Your task to perform on an android device: toggle javascript in the chrome app Image 0: 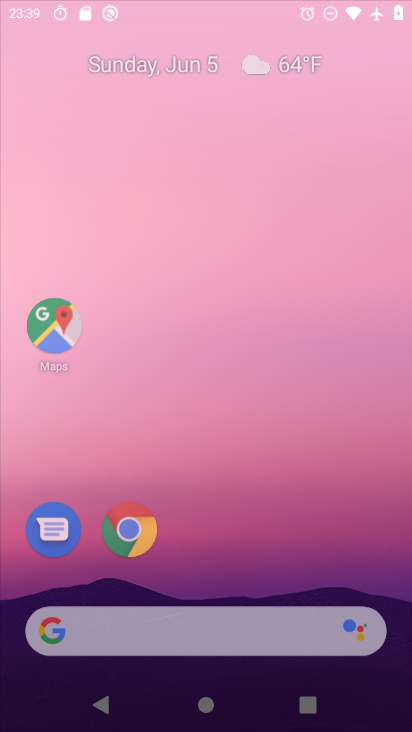
Step 0: click (317, 55)
Your task to perform on an android device: toggle javascript in the chrome app Image 1: 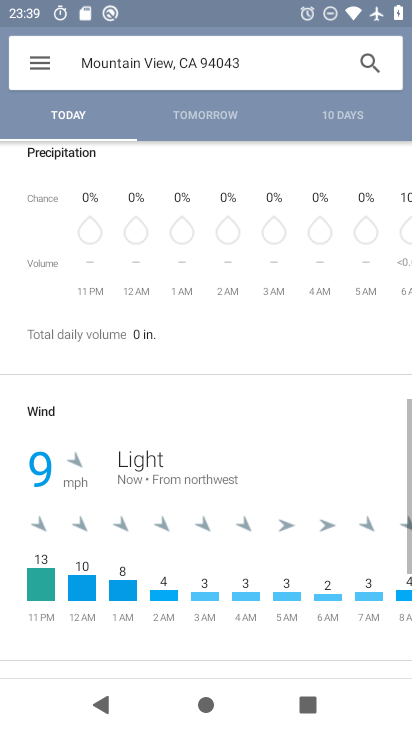
Step 1: drag from (204, 583) to (210, 351)
Your task to perform on an android device: toggle javascript in the chrome app Image 2: 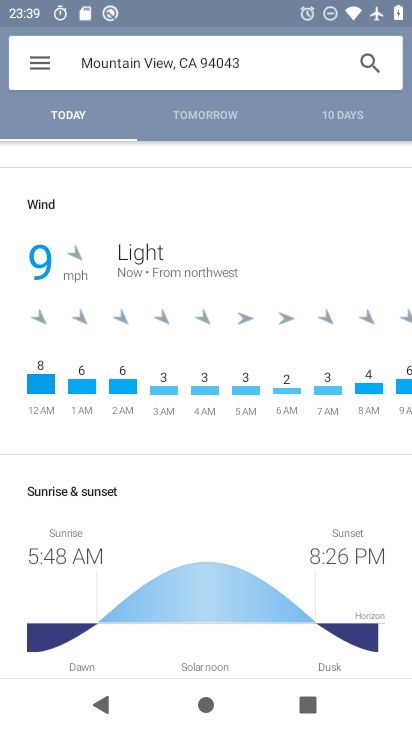
Step 2: drag from (199, 392) to (239, 716)
Your task to perform on an android device: toggle javascript in the chrome app Image 3: 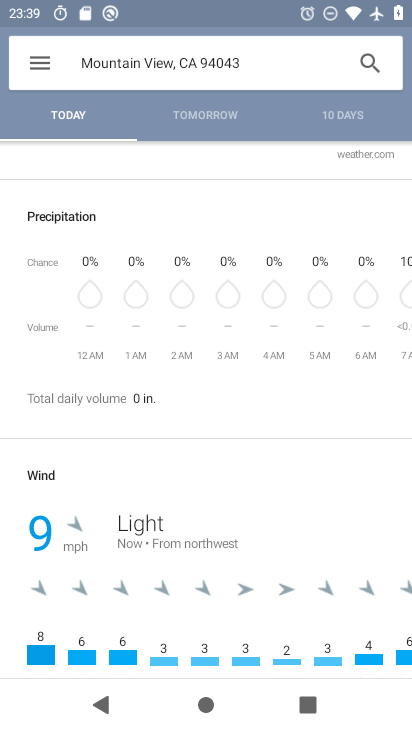
Step 3: click (33, 62)
Your task to perform on an android device: toggle javascript in the chrome app Image 4: 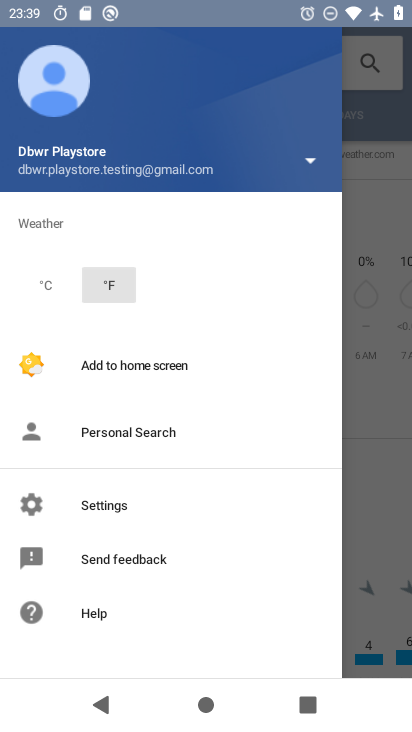
Step 4: press back button
Your task to perform on an android device: toggle javascript in the chrome app Image 5: 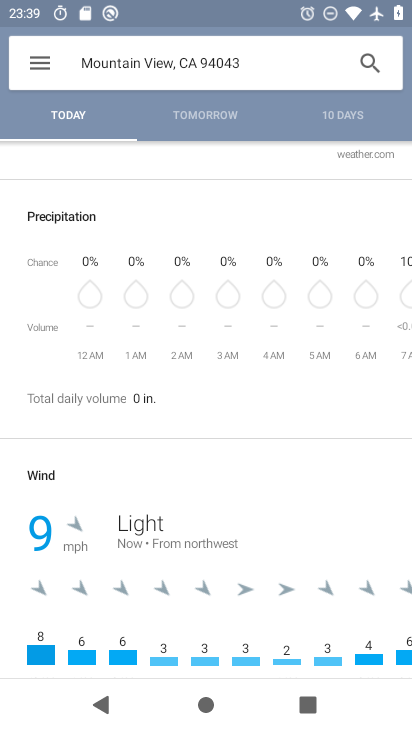
Step 5: press home button
Your task to perform on an android device: toggle javascript in the chrome app Image 6: 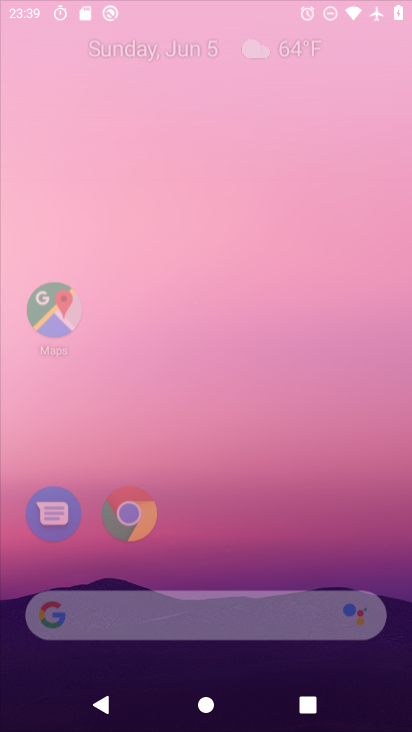
Step 6: drag from (213, 629) to (209, 83)
Your task to perform on an android device: toggle javascript in the chrome app Image 7: 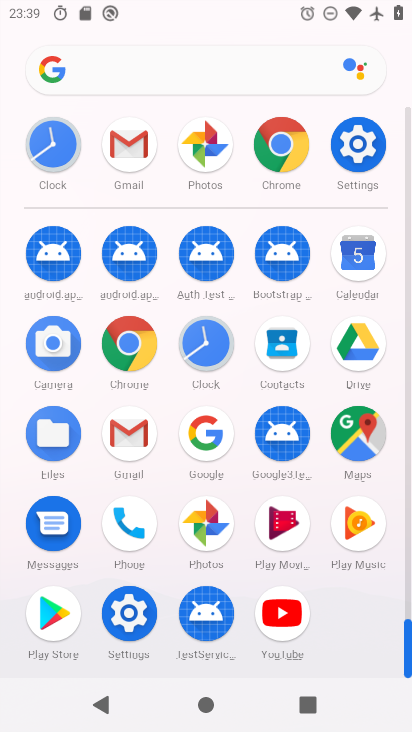
Step 7: click (139, 325)
Your task to perform on an android device: toggle javascript in the chrome app Image 8: 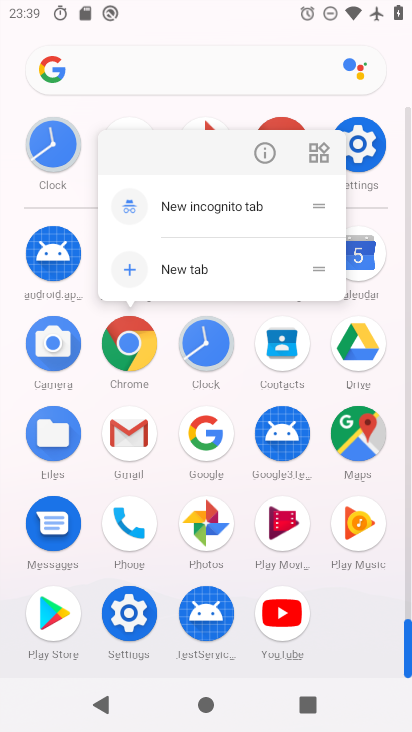
Step 8: click (268, 161)
Your task to perform on an android device: toggle javascript in the chrome app Image 9: 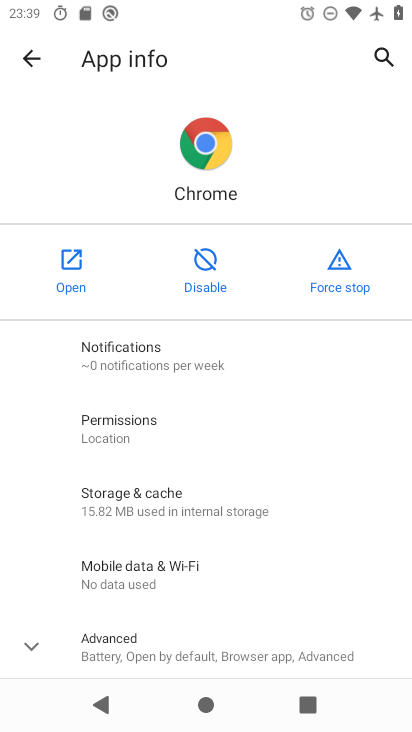
Step 9: click (70, 253)
Your task to perform on an android device: toggle javascript in the chrome app Image 10: 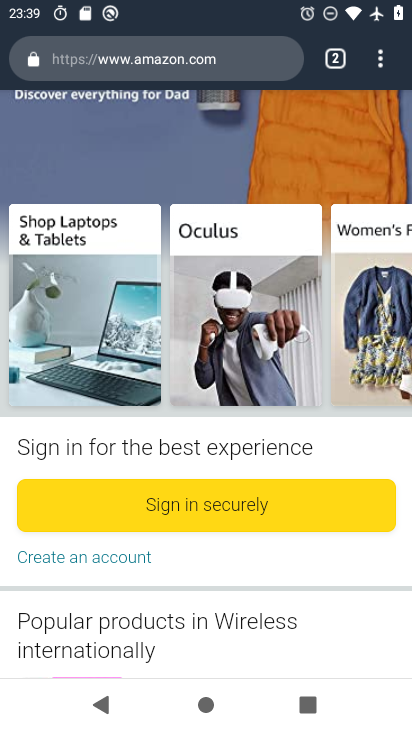
Step 10: click (368, 61)
Your task to perform on an android device: toggle javascript in the chrome app Image 11: 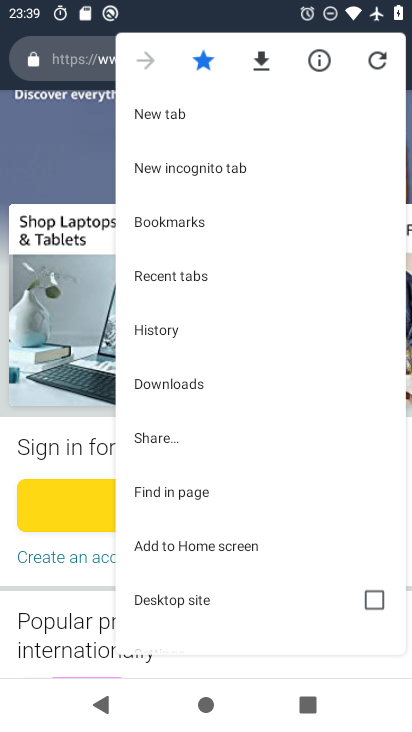
Step 11: drag from (220, 520) to (210, 0)
Your task to perform on an android device: toggle javascript in the chrome app Image 12: 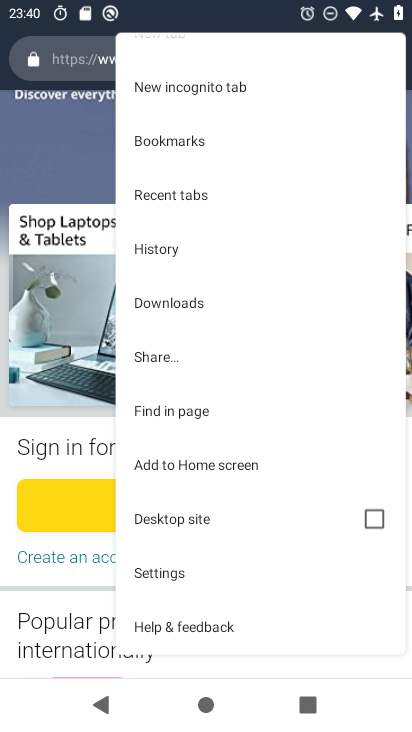
Step 12: click (179, 552)
Your task to perform on an android device: toggle javascript in the chrome app Image 13: 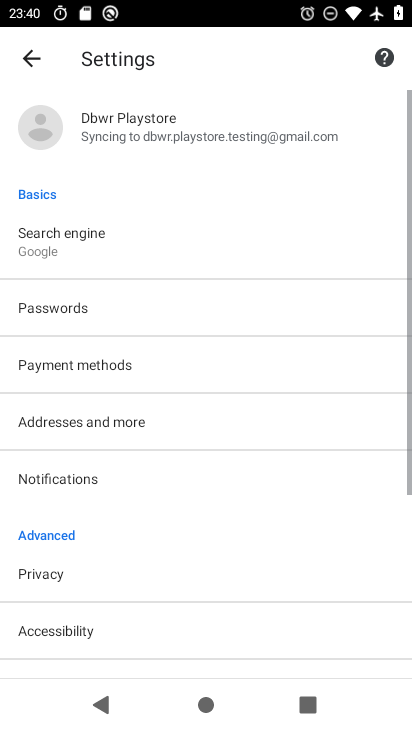
Step 13: drag from (210, 504) to (253, 126)
Your task to perform on an android device: toggle javascript in the chrome app Image 14: 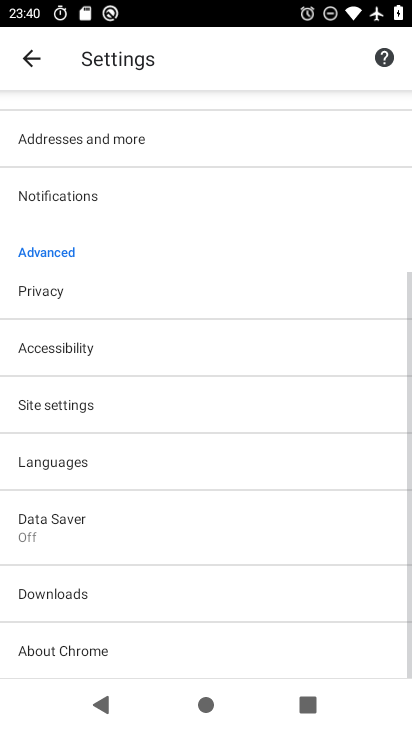
Step 14: click (109, 393)
Your task to perform on an android device: toggle javascript in the chrome app Image 15: 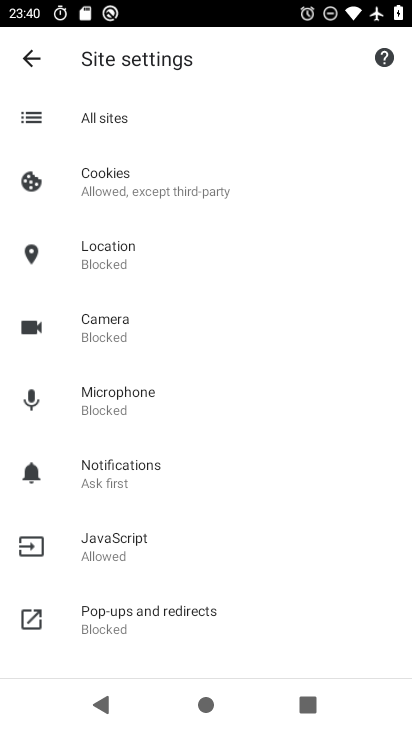
Step 15: click (143, 566)
Your task to perform on an android device: toggle javascript in the chrome app Image 16: 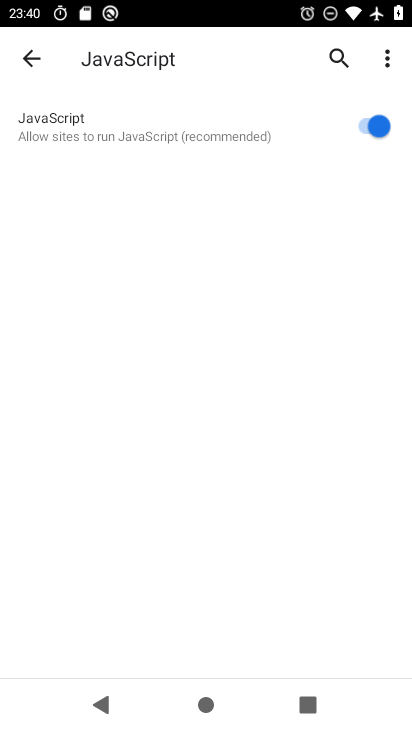
Step 16: click (385, 113)
Your task to perform on an android device: toggle javascript in the chrome app Image 17: 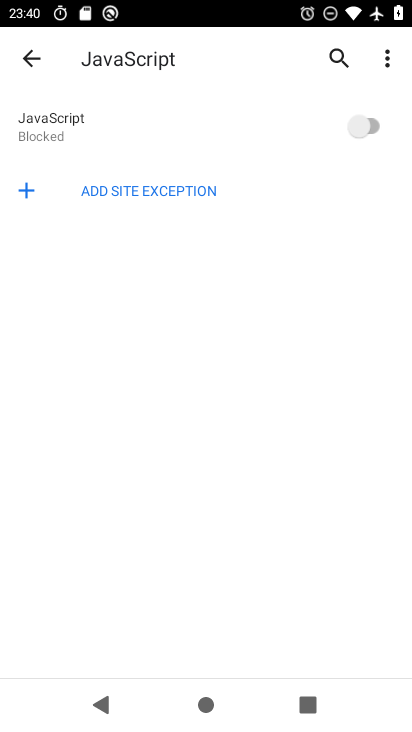
Step 17: task complete